Your task to perform on an android device: What's the weather going to be this weekend? Image 0: 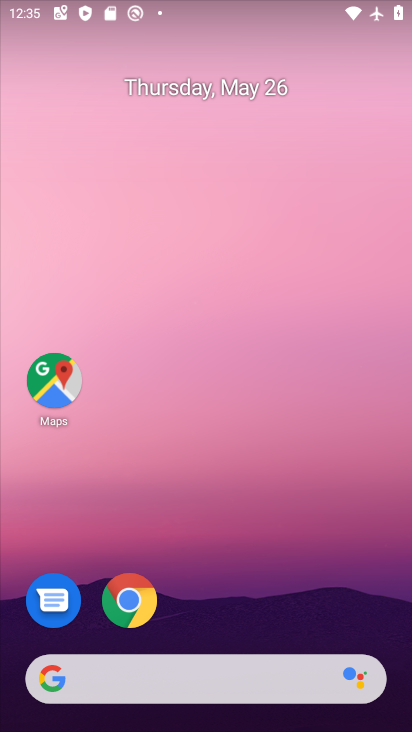
Step 0: click (128, 599)
Your task to perform on an android device: What's the weather going to be this weekend? Image 1: 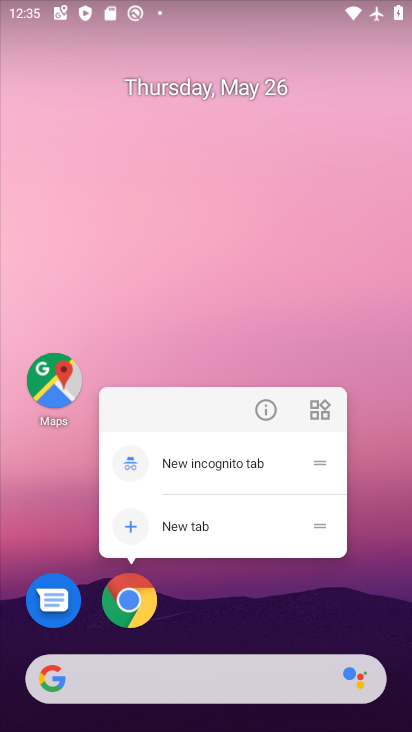
Step 1: click (138, 604)
Your task to perform on an android device: What's the weather going to be this weekend? Image 2: 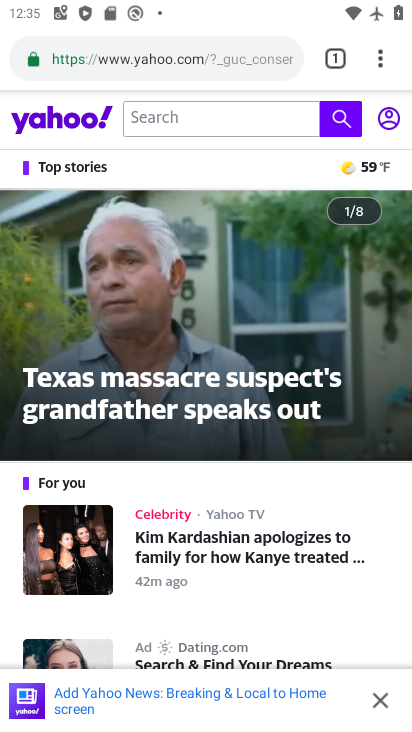
Step 2: click (275, 55)
Your task to perform on an android device: What's the weather going to be this weekend? Image 3: 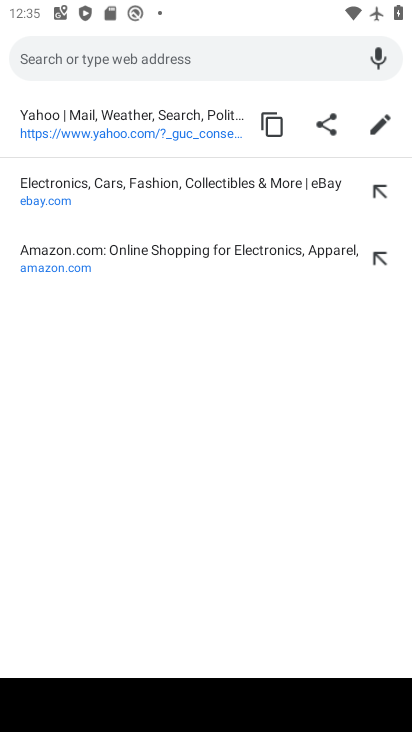
Step 3: type "weather"
Your task to perform on an android device: What's the weather going to be this weekend? Image 4: 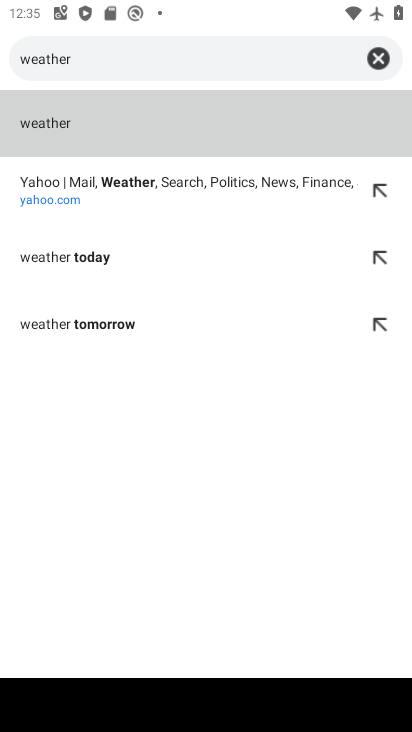
Step 4: click (53, 123)
Your task to perform on an android device: What's the weather going to be this weekend? Image 5: 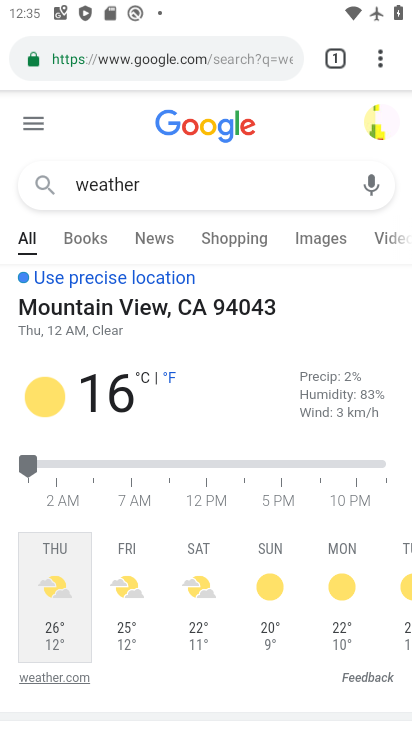
Step 5: task complete